Your task to perform on an android device: Search for seafood restaurants on Google Maps Image 0: 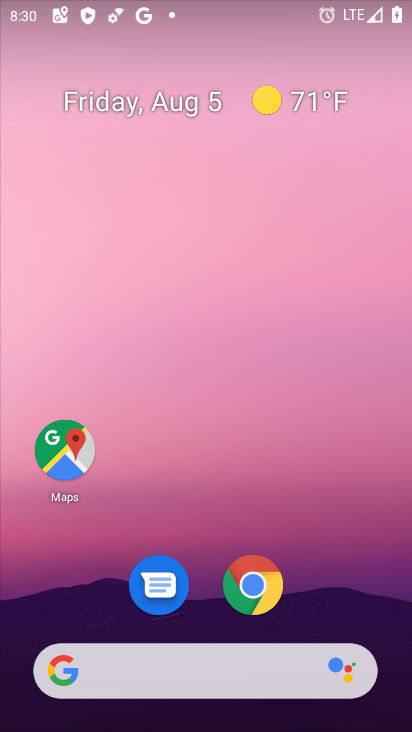
Step 0: click (73, 451)
Your task to perform on an android device: Search for seafood restaurants on Google Maps Image 1: 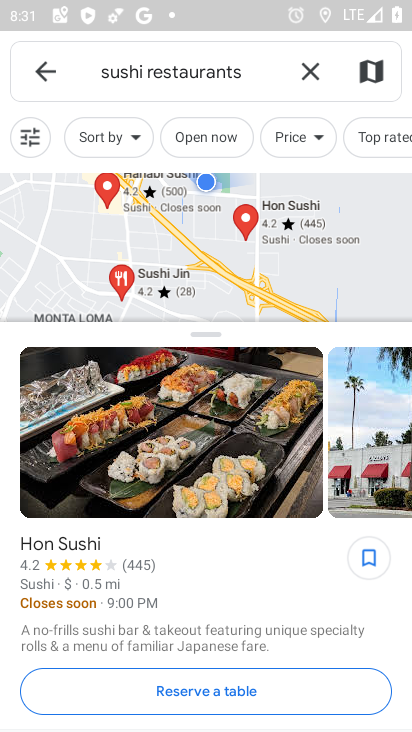
Step 1: click (47, 63)
Your task to perform on an android device: Search for seafood restaurants on Google Maps Image 2: 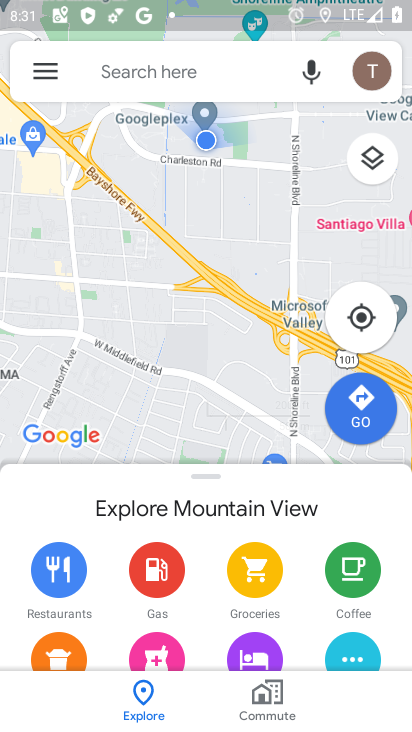
Step 2: click (139, 64)
Your task to perform on an android device: Search for seafood restaurants on Google Maps Image 3: 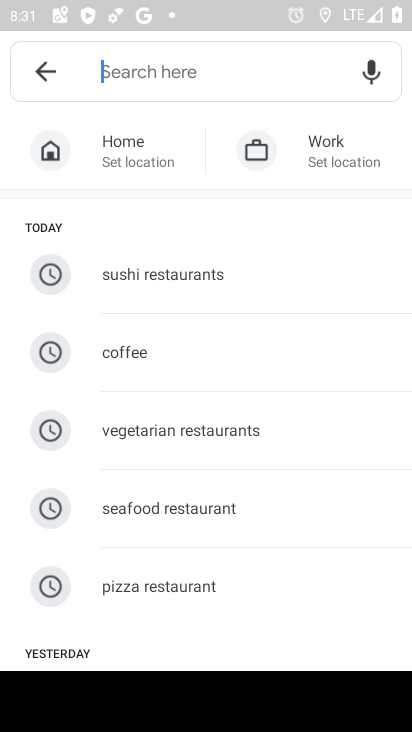
Step 3: click (178, 512)
Your task to perform on an android device: Search for seafood restaurants on Google Maps Image 4: 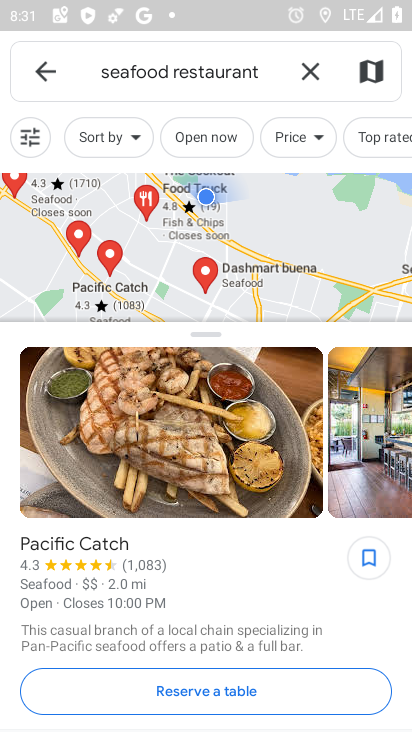
Step 4: task complete